Your task to perform on an android device: turn vacation reply on in the gmail app Image 0: 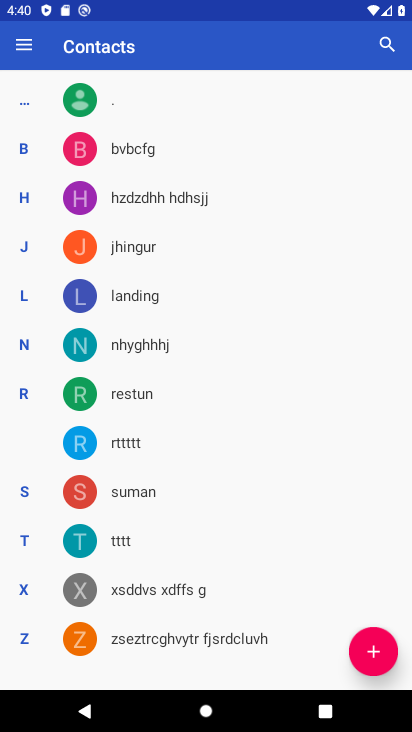
Step 0: press home button
Your task to perform on an android device: turn vacation reply on in the gmail app Image 1: 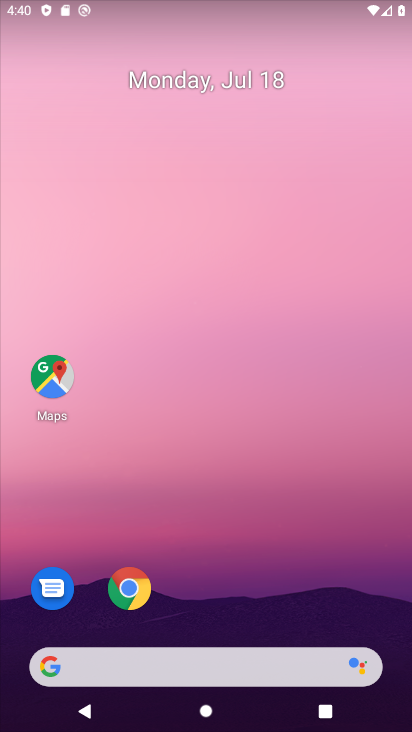
Step 1: drag from (269, 614) to (203, 321)
Your task to perform on an android device: turn vacation reply on in the gmail app Image 2: 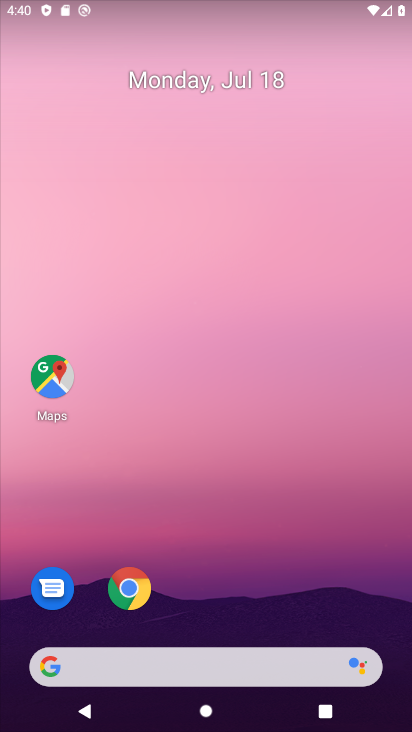
Step 2: drag from (244, 606) to (173, 133)
Your task to perform on an android device: turn vacation reply on in the gmail app Image 3: 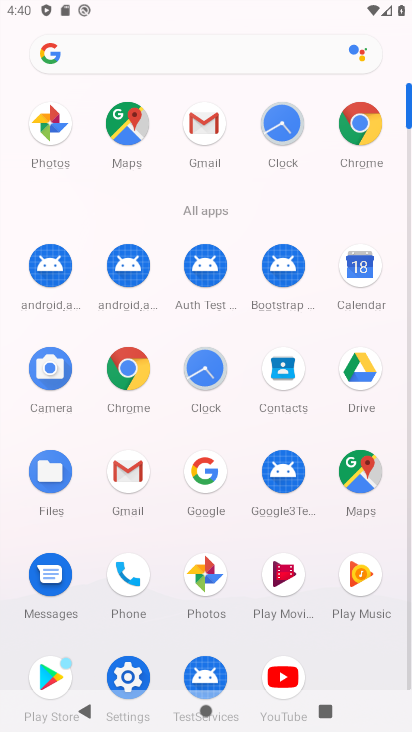
Step 3: click (200, 137)
Your task to perform on an android device: turn vacation reply on in the gmail app Image 4: 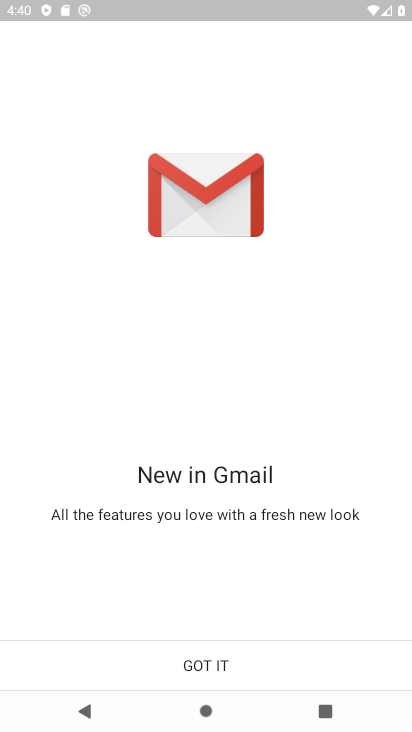
Step 4: click (220, 668)
Your task to perform on an android device: turn vacation reply on in the gmail app Image 5: 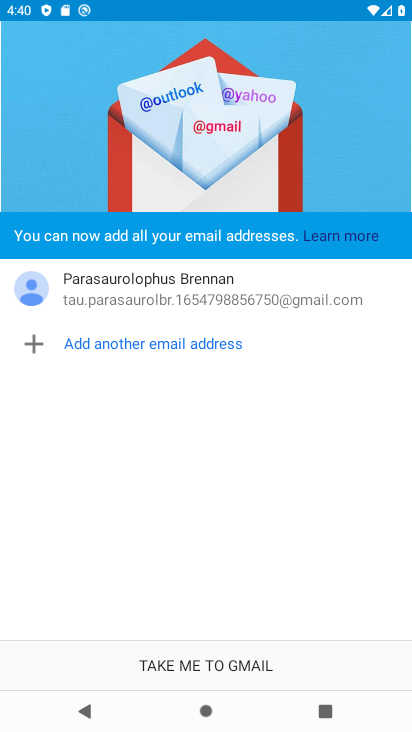
Step 5: click (221, 668)
Your task to perform on an android device: turn vacation reply on in the gmail app Image 6: 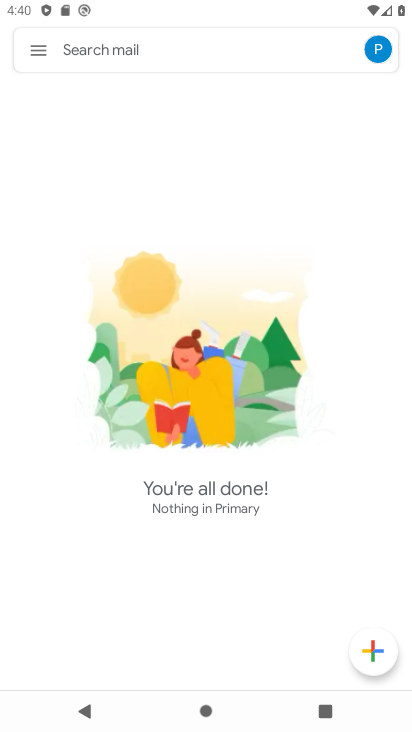
Step 6: click (37, 43)
Your task to perform on an android device: turn vacation reply on in the gmail app Image 7: 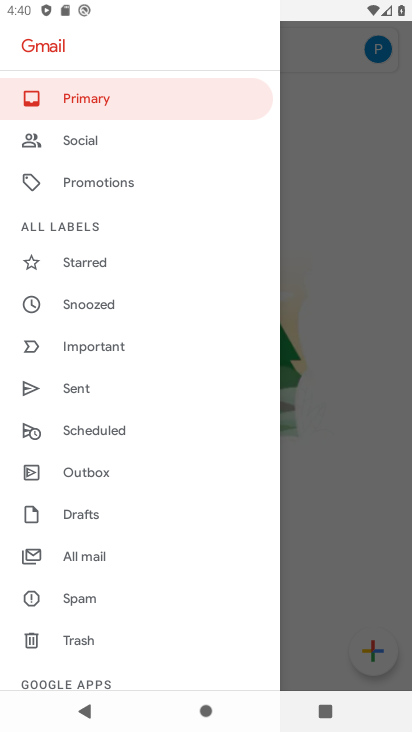
Step 7: drag from (125, 649) to (106, 278)
Your task to perform on an android device: turn vacation reply on in the gmail app Image 8: 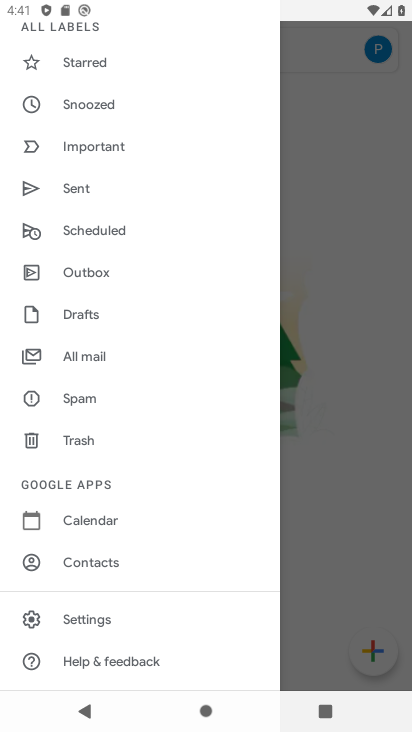
Step 8: click (111, 621)
Your task to perform on an android device: turn vacation reply on in the gmail app Image 9: 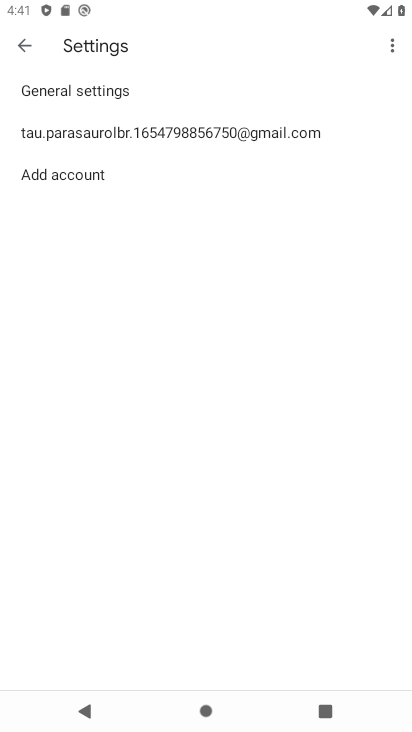
Step 9: click (210, 140)
Your task to perform on an android device: turn vacation reply on in the gmail app Image 10: 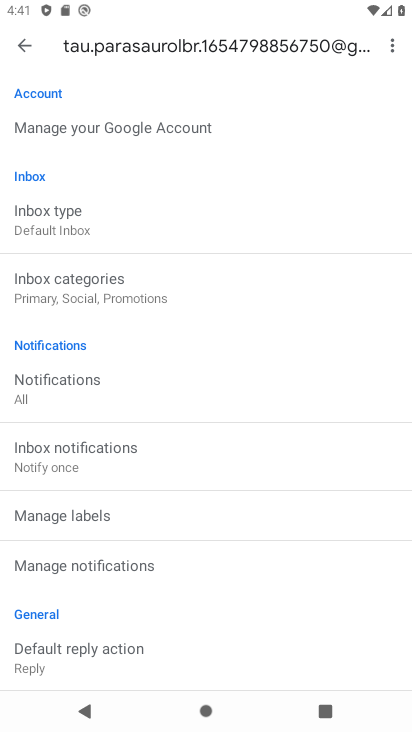
Step 10: drag from (171, 612) to (164, 311)
Your task to perform on an android device: turn vacation reply on in the gmail app Image 11: 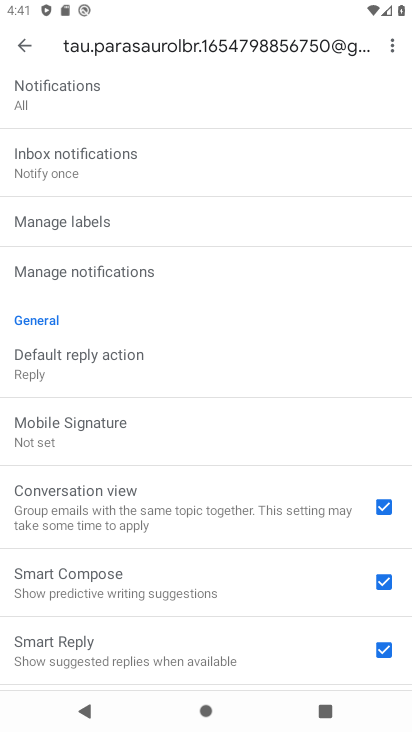
Step 11: drag from (196, 672) to (191, 445)
Your task to perform on an android device: turn vacation reply on in the gmail app Image 12: 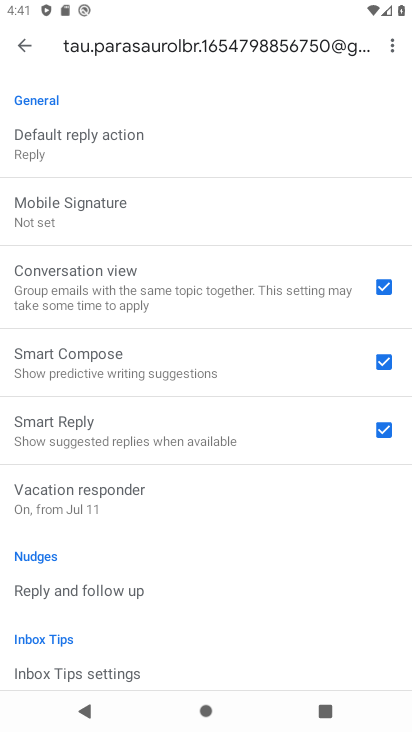
Step 12: click (206, 506)
Your task to perform on an android device: turn vacation reply on in the gmail app Image 13: 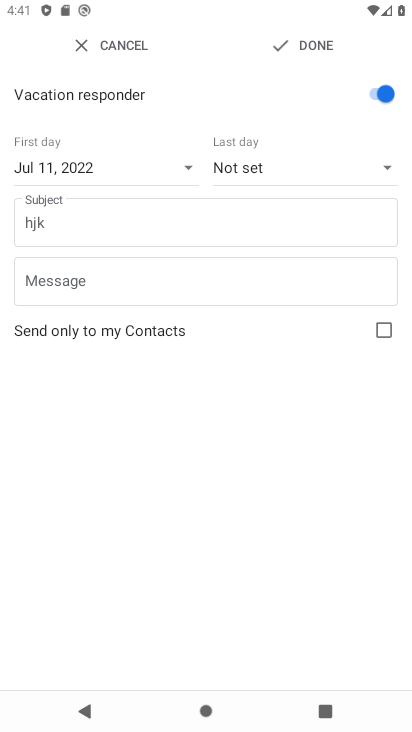
Step 13: click (307, 236)
Your task to perform on an android device: turn vacation reply on in the gmail app Image 14: 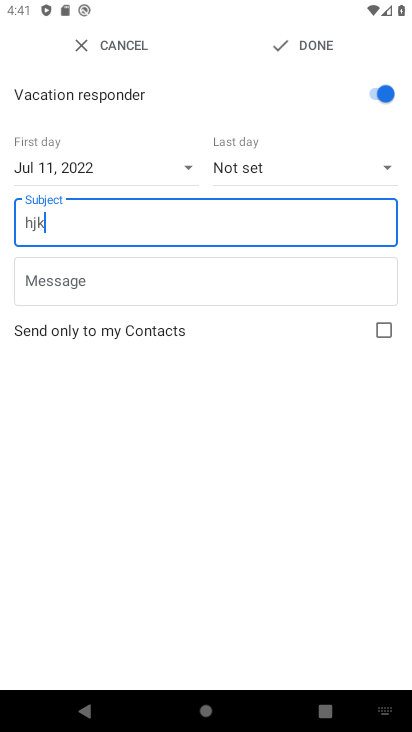
Step 14: type "n n "
Your task to perform on an android device: turn vacation reply on in the gmail app Image 15: 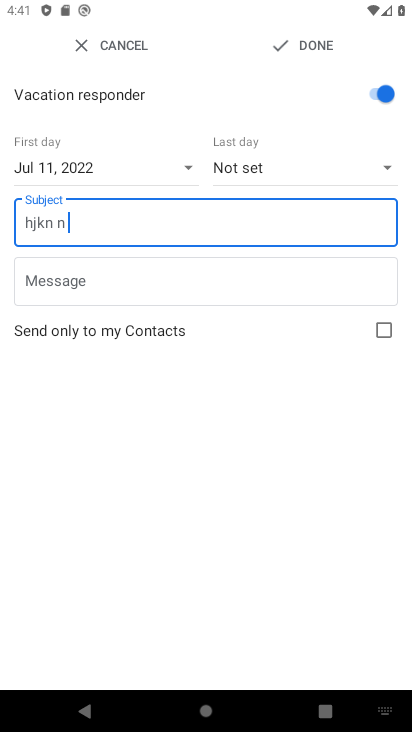
Step 15: click (333, 39)
Your task to perform on an android device: turn vacation reply on in the gmail app Image 16: 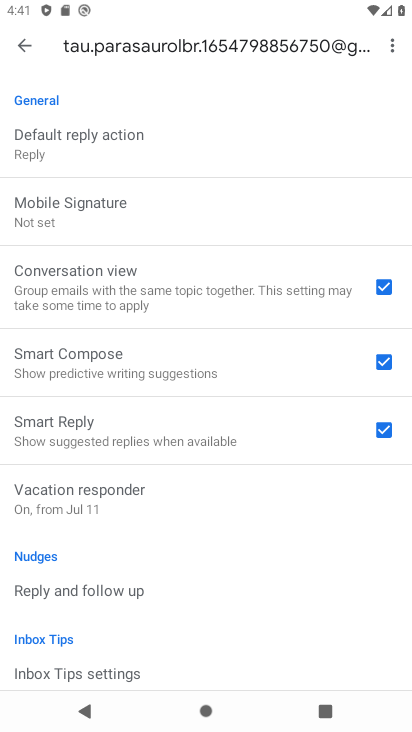
Step 16: task complete